Your task to perform on an android device: Find coffee shops on Maps Image 0: 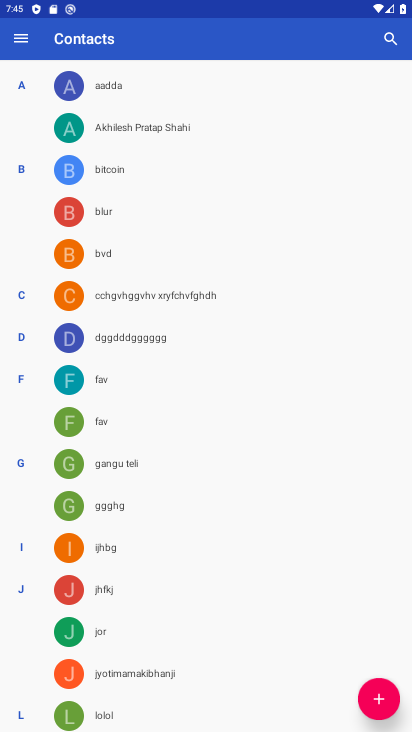
Step 0: press home button
Your task to perform on an android device: Find coffee shops on Maps Image 1: 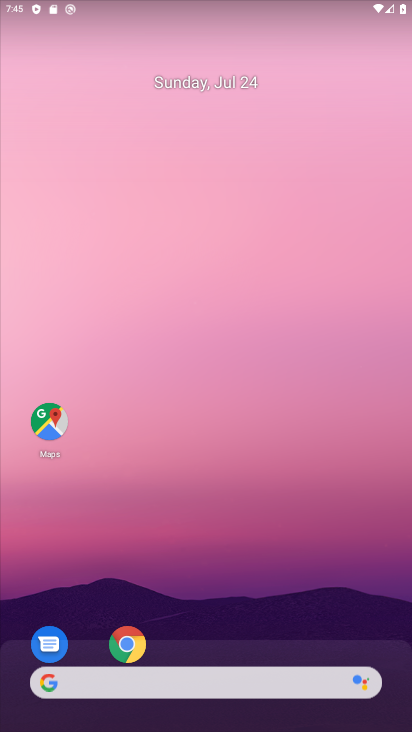
Step 1: click (49, 424)
Your task to perform on an android device: Find coffee shops on Maps Image 2: 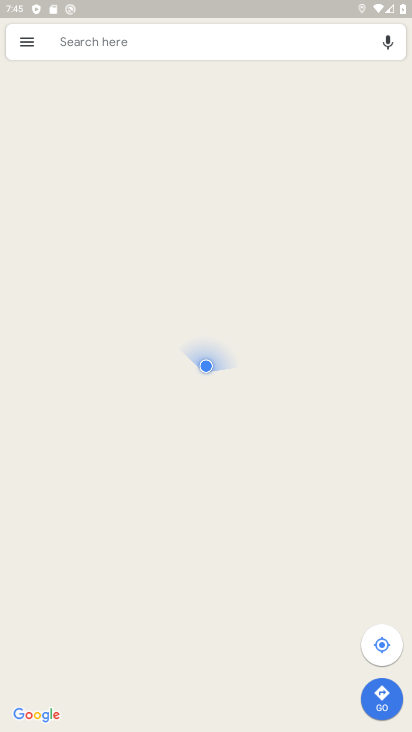
Step 2: click (148, 42)
Your task to perform on an android device: Find coffee shops on Maps Image 3: 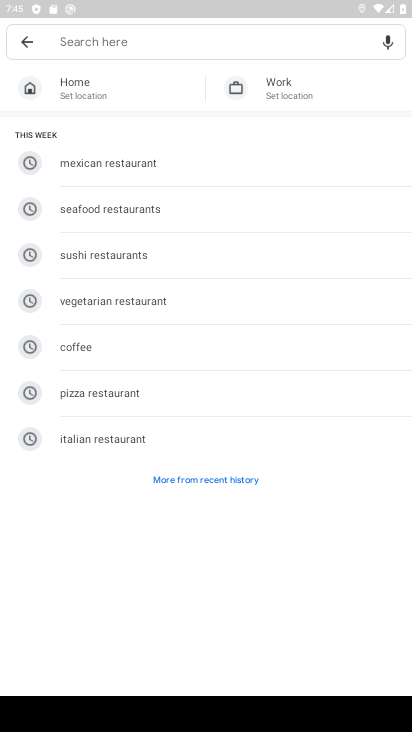
Step 3: click (106, 352)
Your task to perform on an android device: Find coffee shops on Maps Image 4: 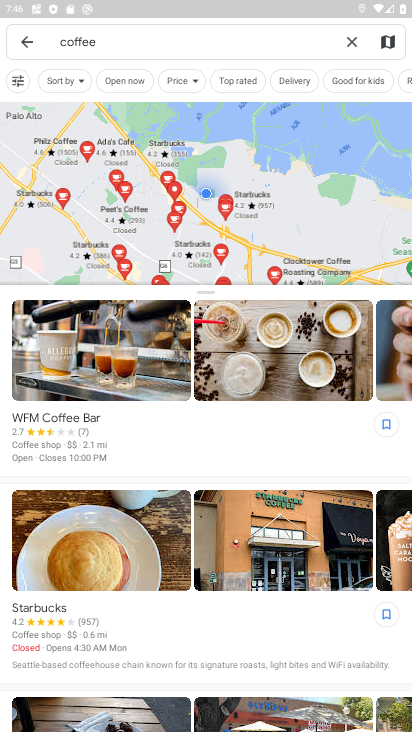
Step 4: task complete